Your task to perform on an android device: Search for razer blade on costco.com, select the first entry, add it to the cart, then select checkout. Image 0: 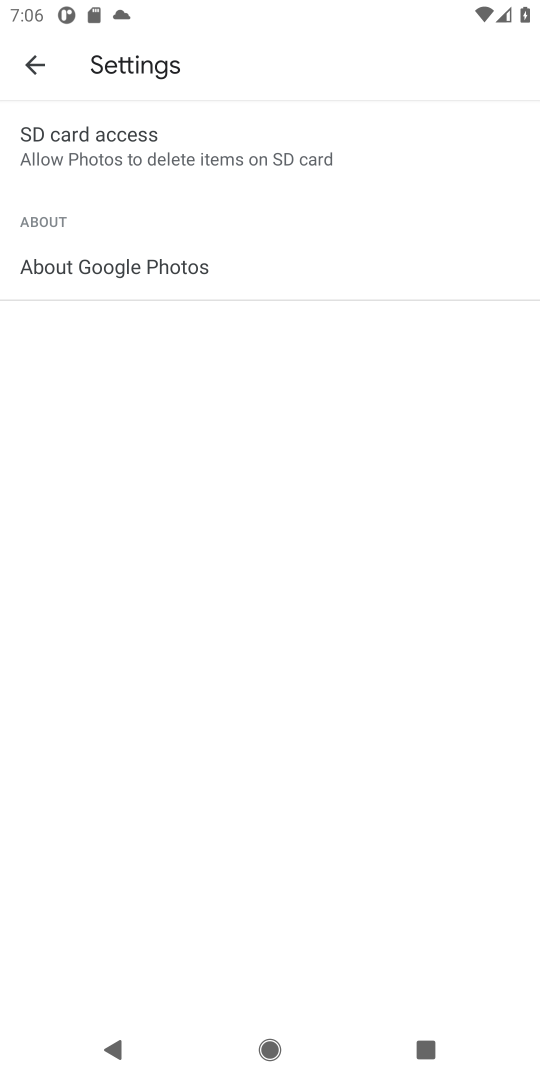
Step 0: press home button
Your task to perform on an android device: Search for razer blade on costco.com, select the first entry, add it to the cart, then select checkout. Image 1: 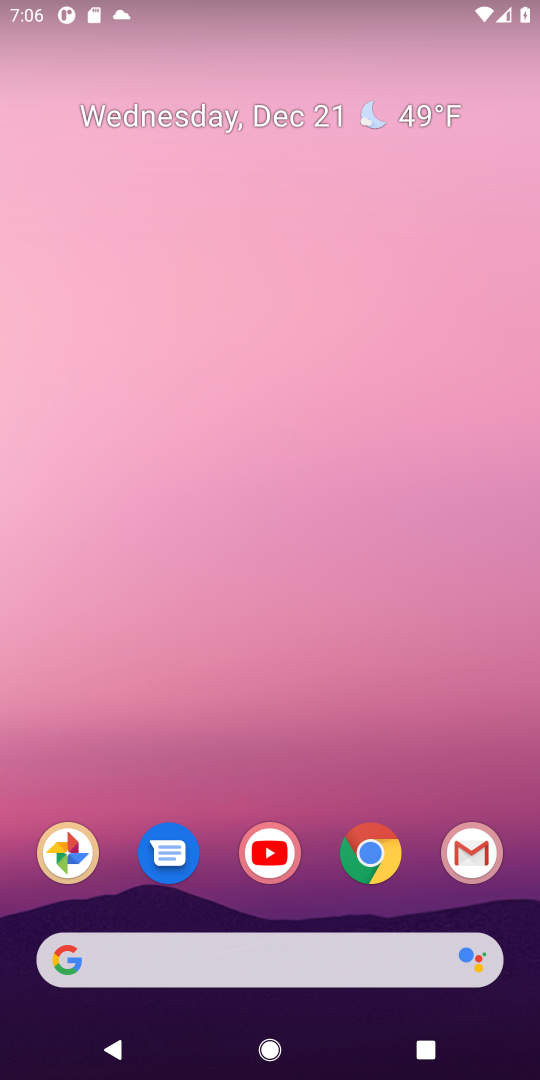
Step 1: click (365, 868)
Your task to perform on an android device: Search for razer blade on costco.com, select the first entry, add it to the cart, then select checkout. Image 2: 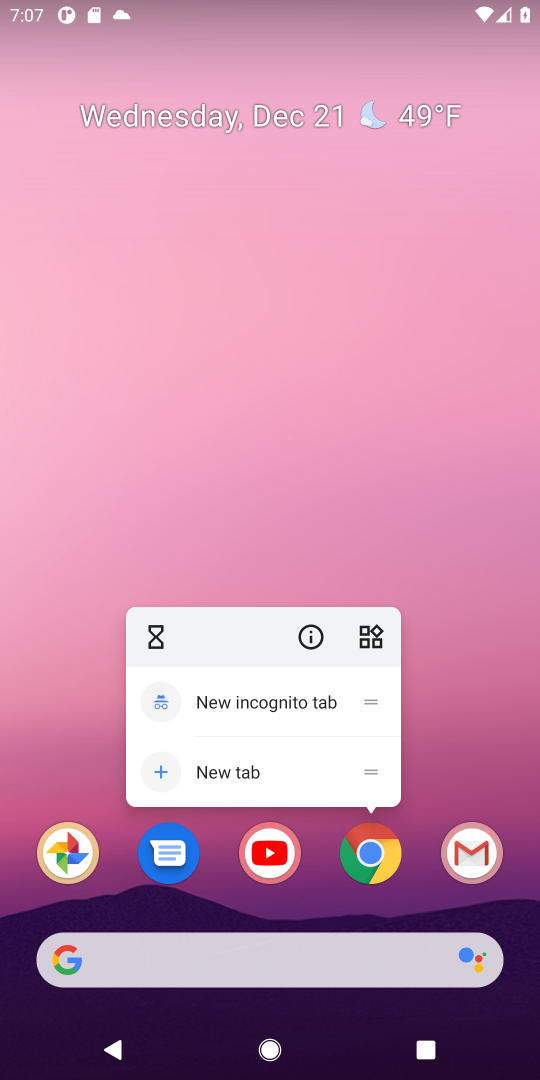
Step 2: click (369, 865)
Your task to perform on an android device: Search for razer blade on costco.com, select the first entry, add it to the cart, then select checkout. Image 3: 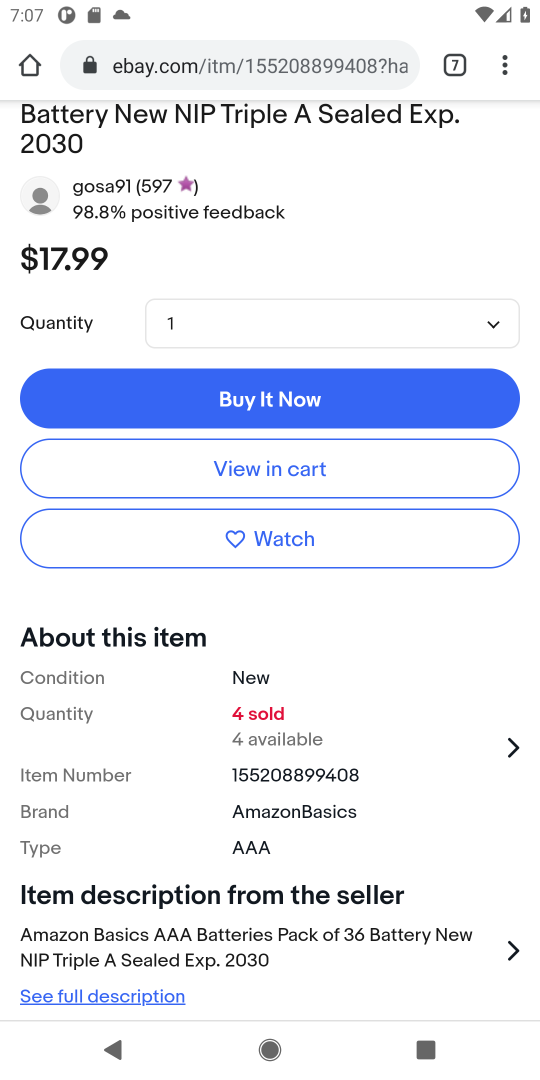
Step 3: click (454, 58)
Your task to perform on an android device: Search for razer blade on costco.com, select the first entry, add it to the cart, then select checkout. Image 4: 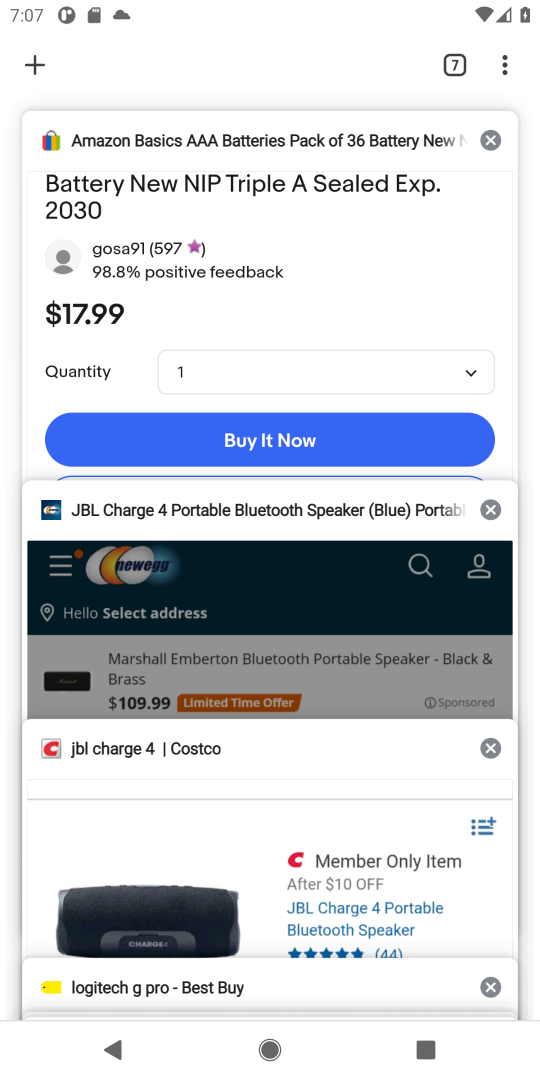
Step 4: click (238, 842)
Your task to perform on an android device: Search for razer blade on costco.com, select the first entry, add it to the cart, then select checkout. Image 5: 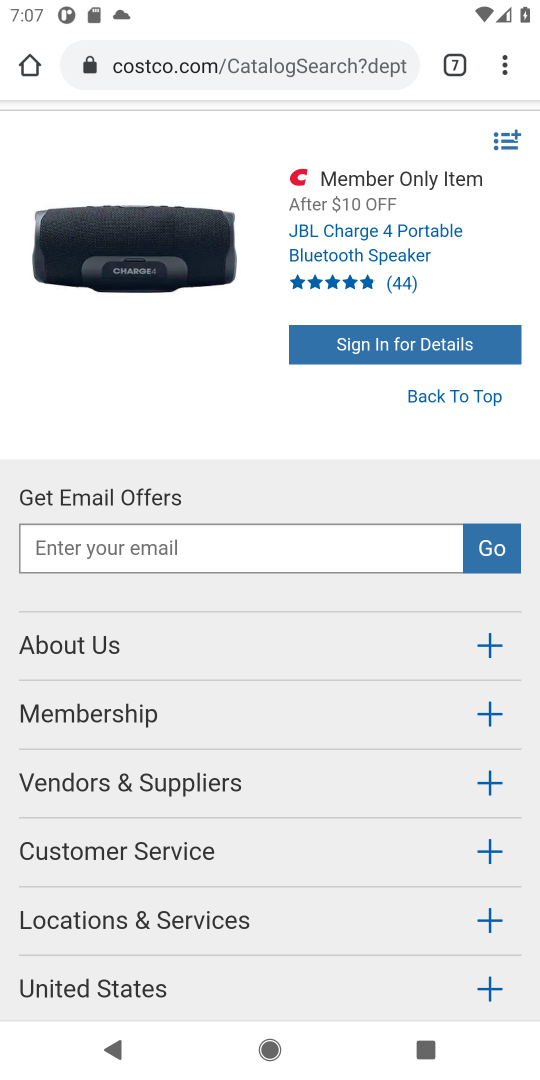
Step 5: drag from (239, 159) to (302, 861)
Your task to perform on an android device: Search for razer blade on costco.com, select the first entry, add it to the cart, then select checkout. Image 6: 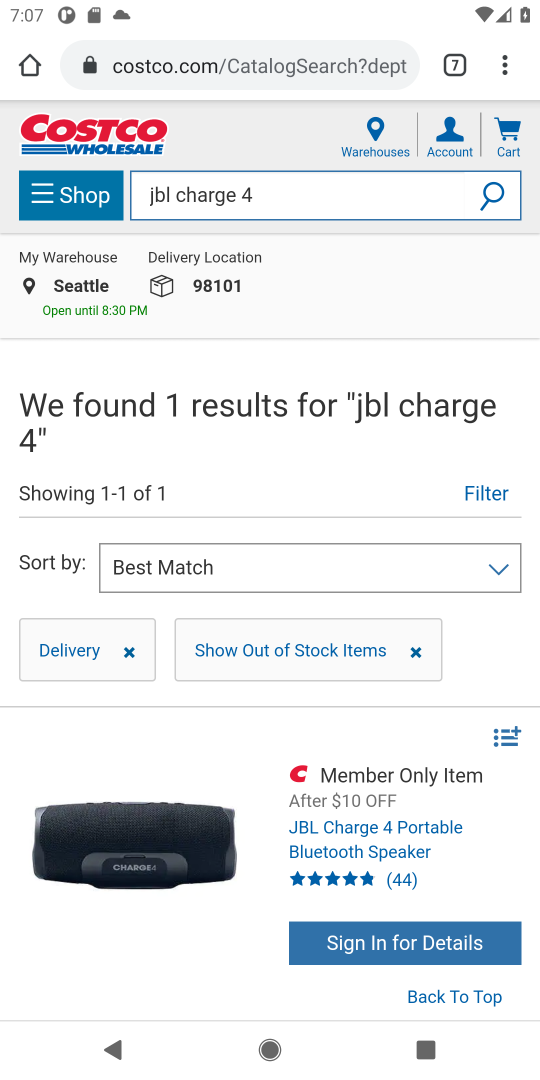
Step 6: click (310, 190)
Your task to perform on an android device: Search for razer blade on costco.com, select the first entry, add it to the cart, then select checkout. Image 7: 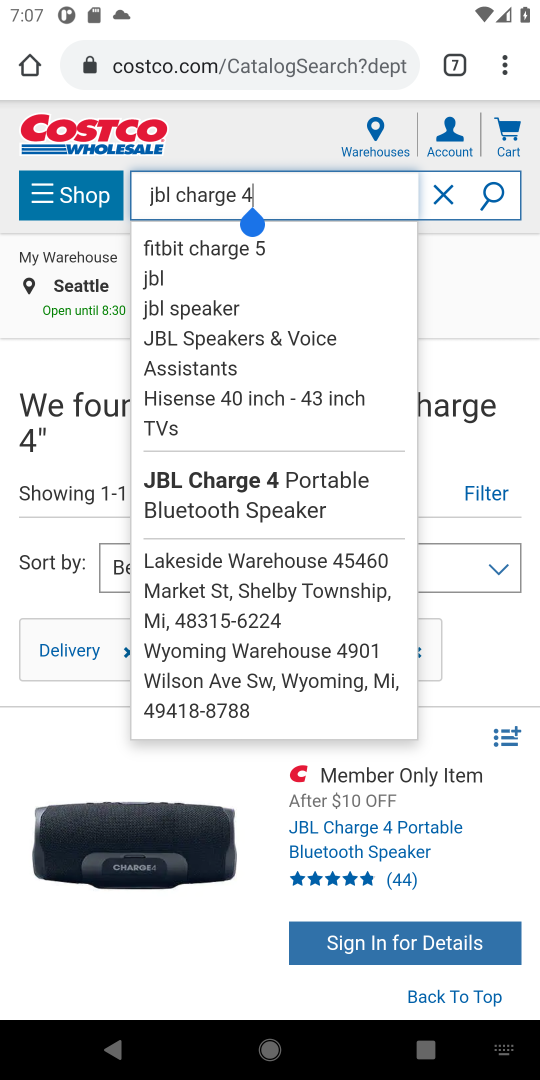
Step 7: click (446, 200)
Your task to perform on an android device: Search for razer blade on costco.com, select the first entry, add it to the cart, then select checkout. Image 8: 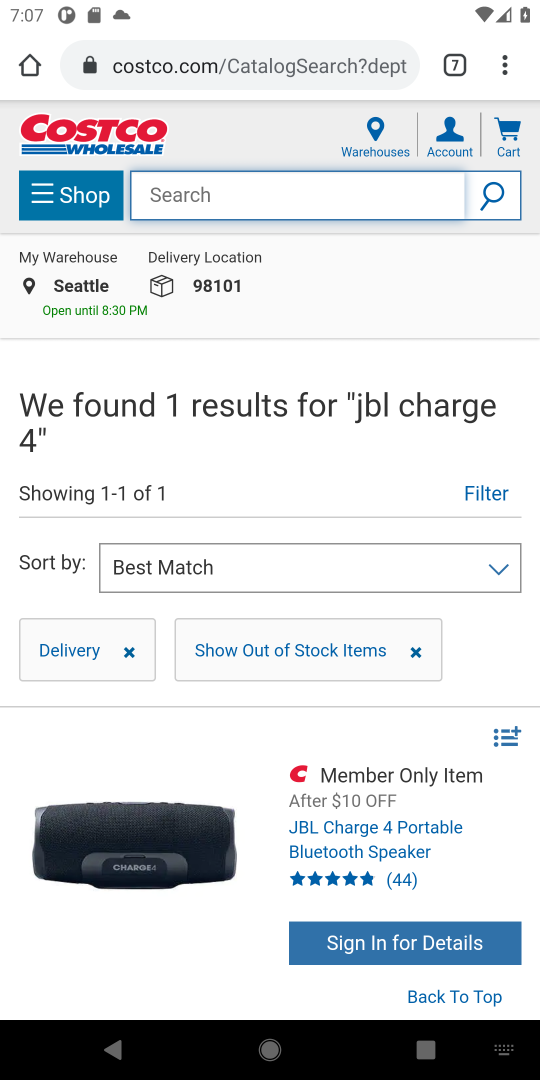
Step 8: type "razer blade"
Your task to perform on an android device: Search for razer blade on costco.com, select the first entry, add it to the cart, then select checkout. Image 9: 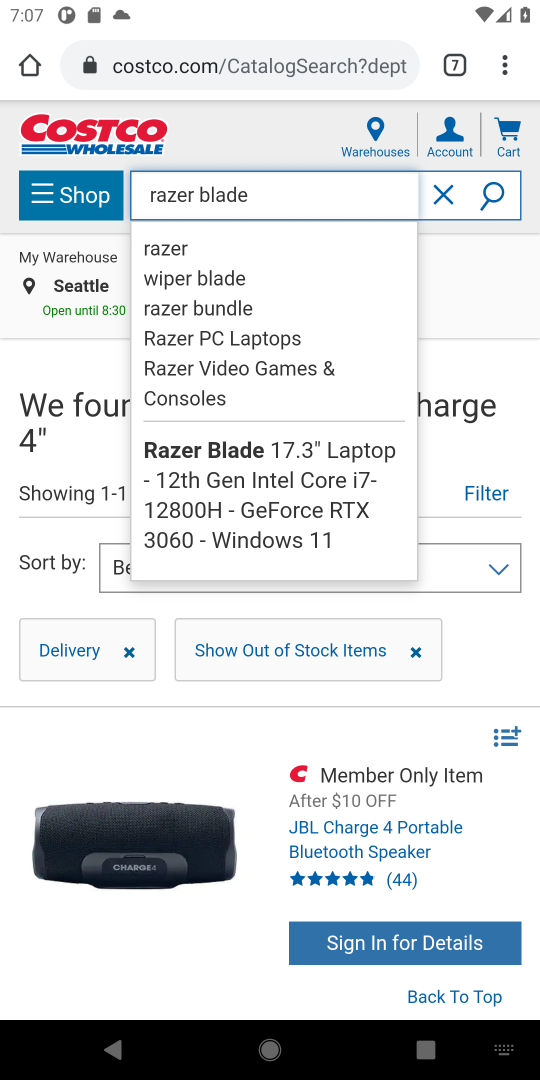
Step 9: click (498, 188)
Your task to perform on an android device: Search for razer blade on costco.com, select the first entry, add it to the cart, then select checkout. Image 10: 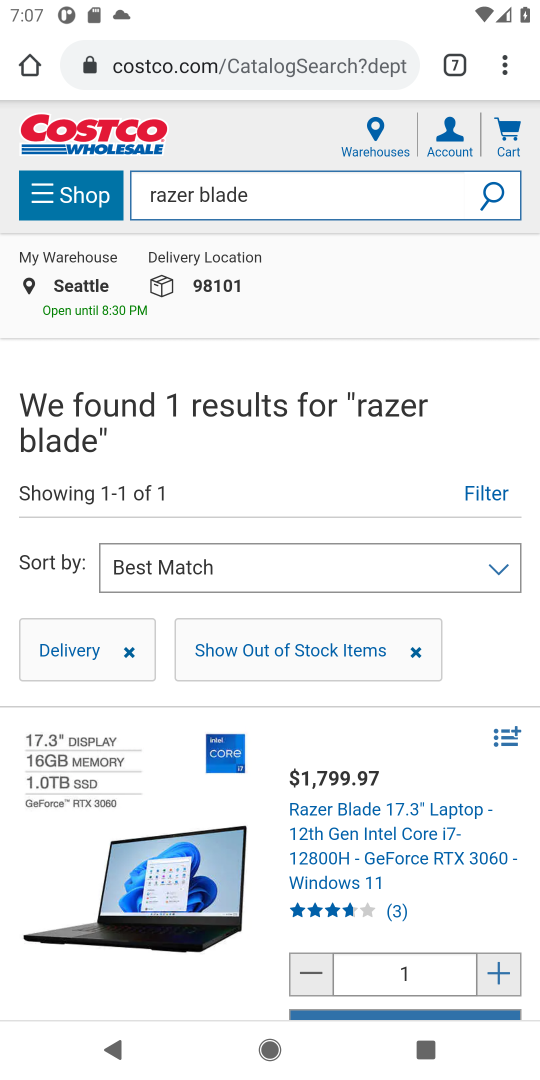
Step 10: drag from (203, 948) to (373, 73)
Your task to perform on an android device: Search for razer blade on costco.com, select the first entry, add it to the cart, then select checkout. Image 11: 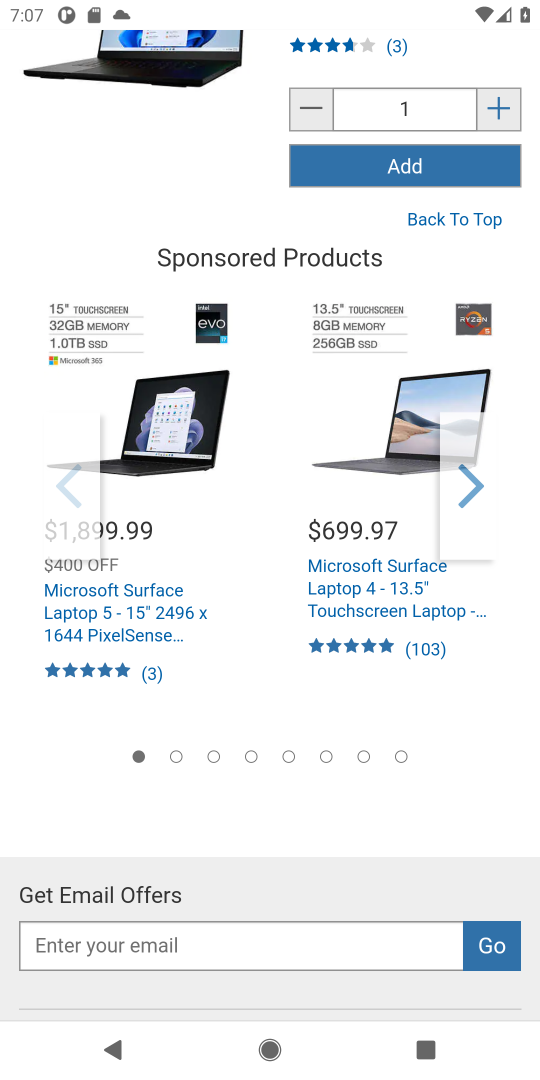
Step 11: click (384, 167)
Your task to perform on an android device: Search for razer blade on costco.com, select the first entry, add it to the cart, then select checkout. Image 12: 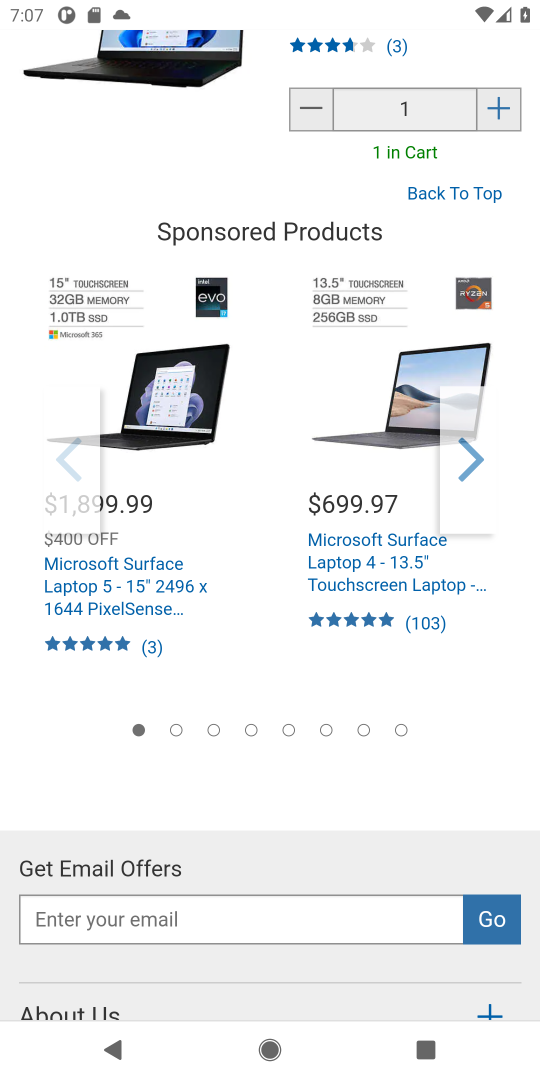
Step 12: task complete